Your task to perform on an android device: Open Google Maps Image 0: 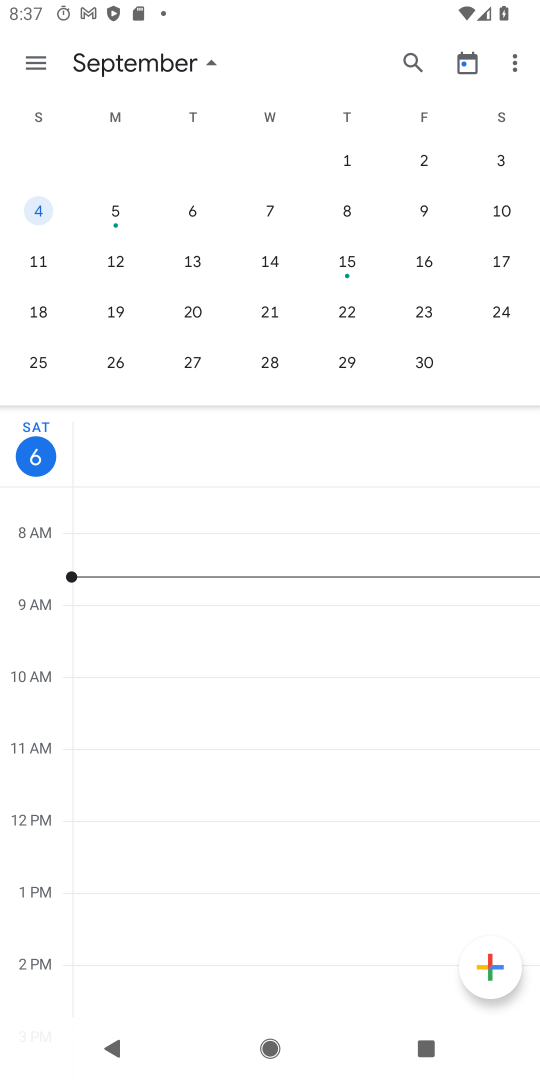
Step 0: press home button
Your task to perform on an android device: Open Google Maps Image 1: 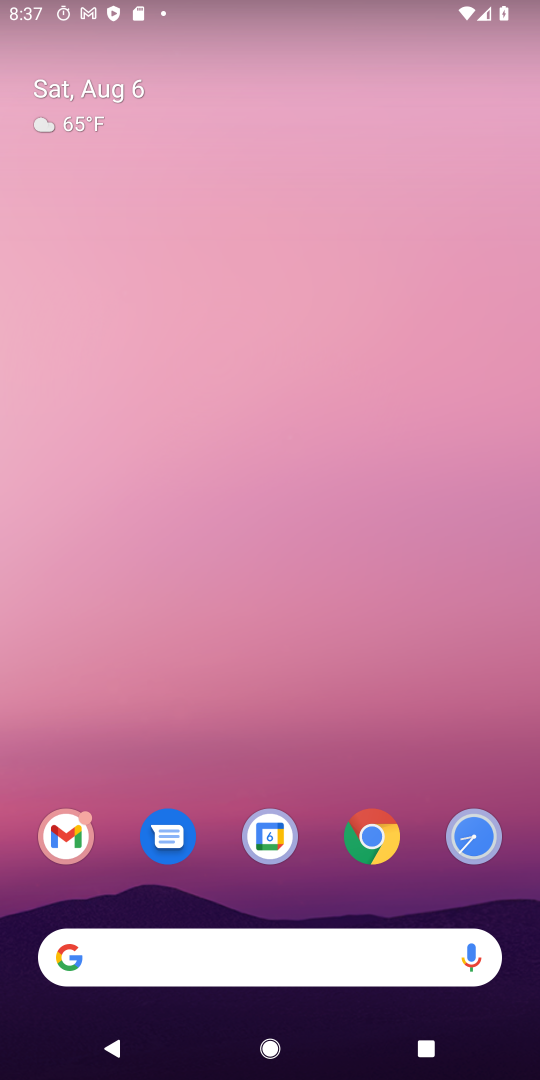
Step 1: drag from (410, 894) to (314, 37)
Your task to perform on an android device: Open Google Maps Image 2: 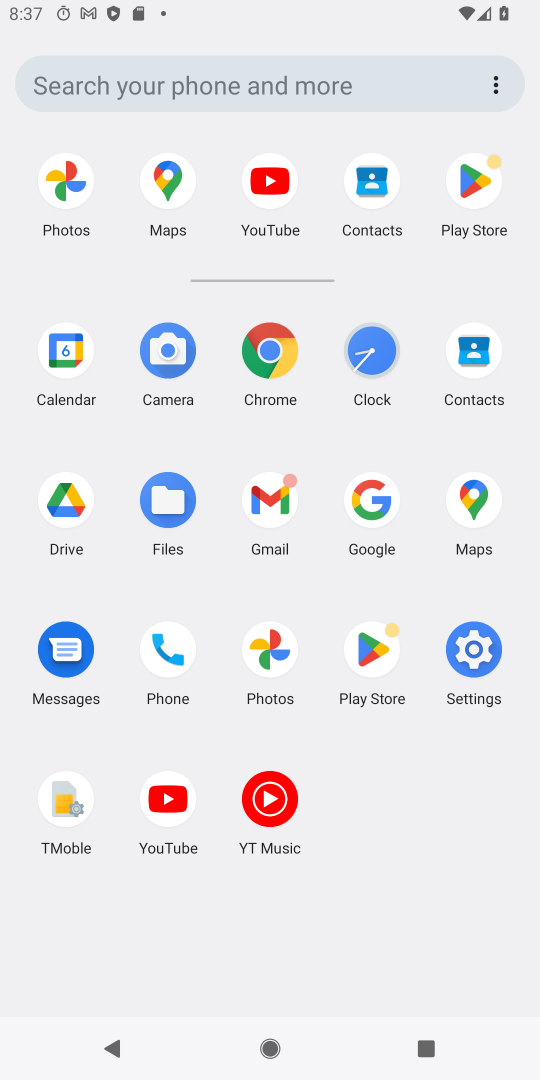
Step 2: click (467, 520)
Your task to perform on an android device: Open Google Maps Image 3: 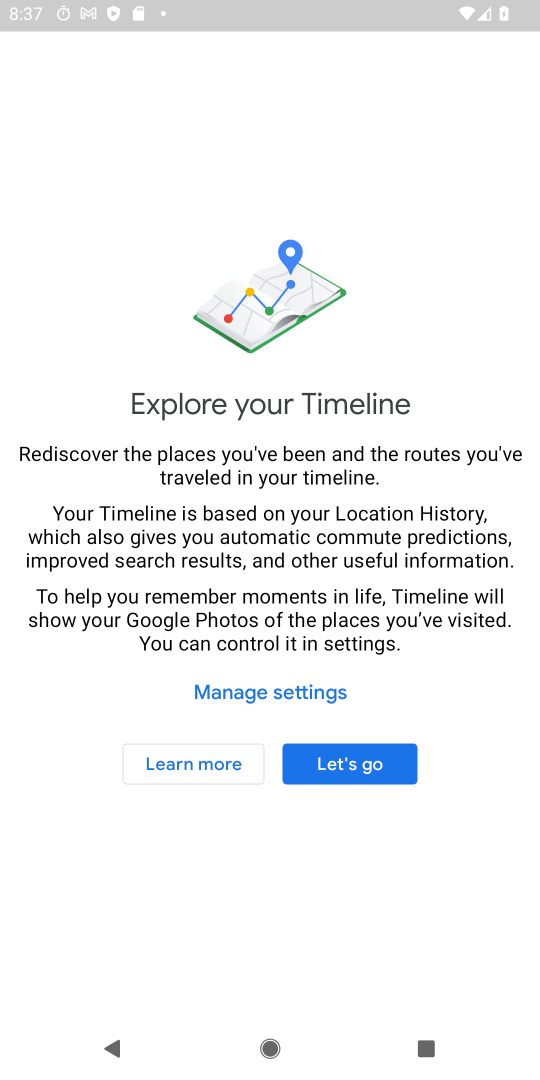
Step 3: task complete